Your task to perform on an android device: delete location history Image 0: 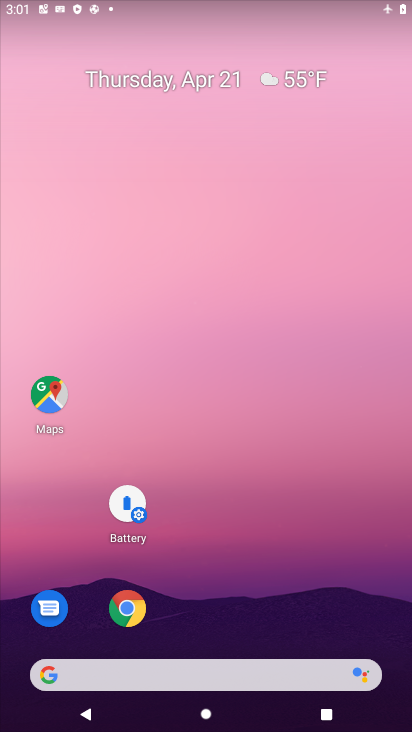
Step 0: drag from (309, 574) to (267, 43)
Your task to perform on an android device: delete location history Image 1: 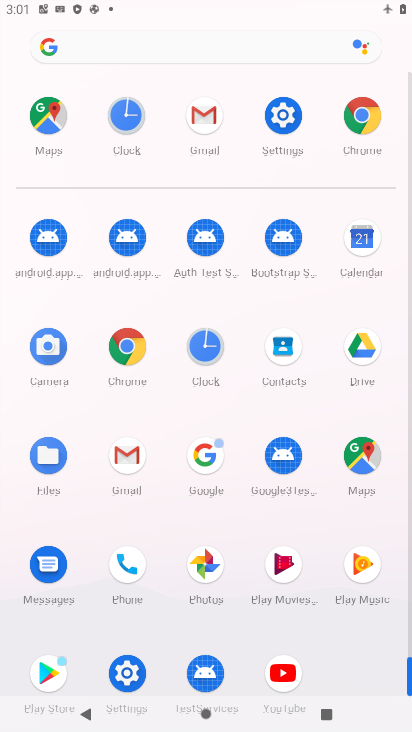
Step 1: click (278, 126)
Your task to perform on an android device: delete location history Image 2: 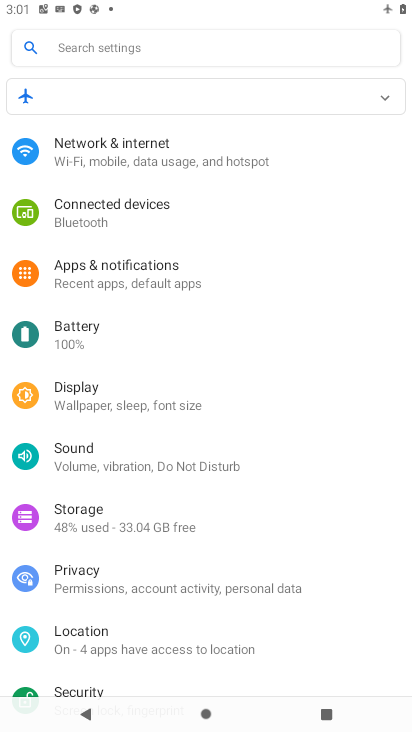
Step 2: press home button
Your task to perform on an android device: delete location history Image 3: 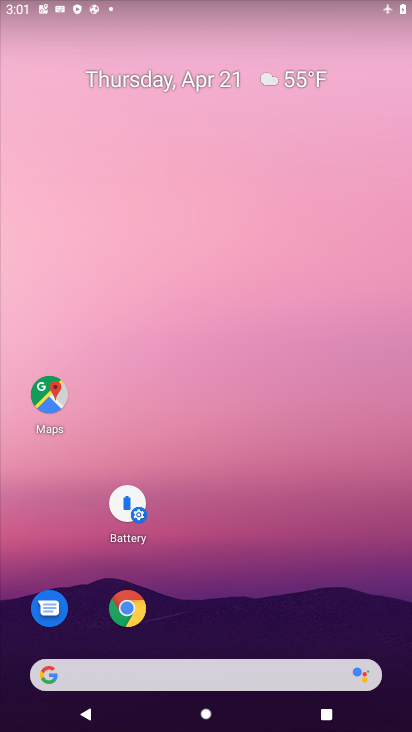
Step 3: click (54, 390)
Your task to perform on an android device: delete location history Image 4: 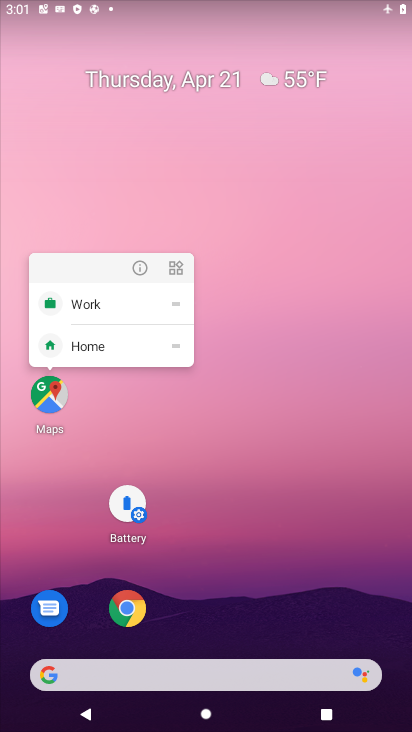
Step 4: click (54, 388)
Your task to perform on an android device: delete location history Image 5: 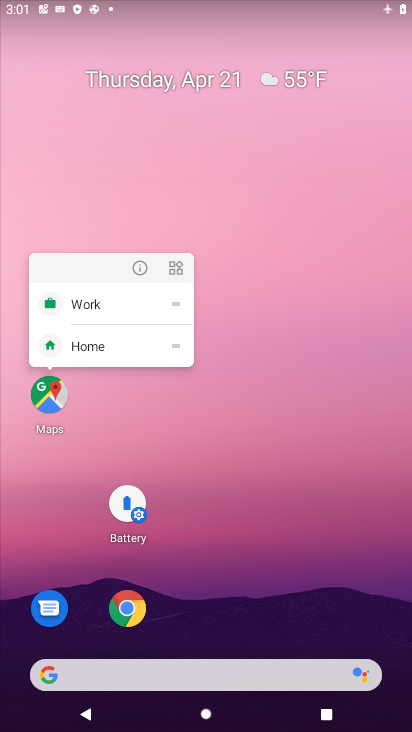
Step 5: click (54, 386)
Your task to perform on an android device: delete location history Image 6: 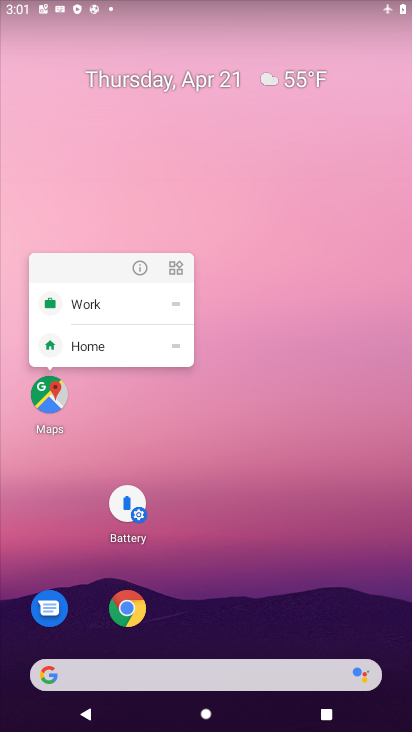
Step 6: click (54, 385)
Your task to perform on an android device: delete location history Image 7: 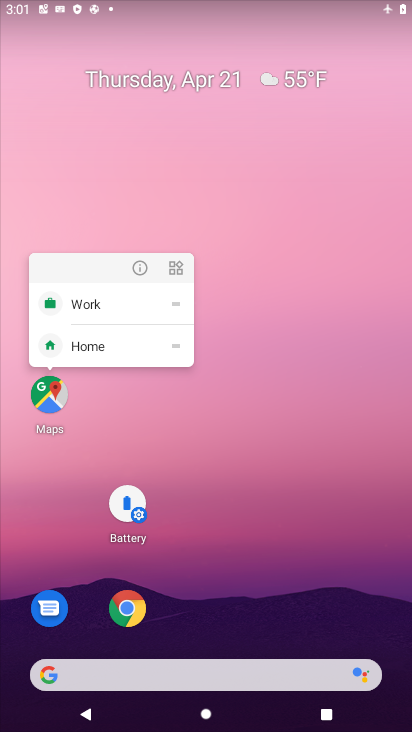
Step 7: click (54, 385)
Your task to perform on an android device: delete location history Image 8: 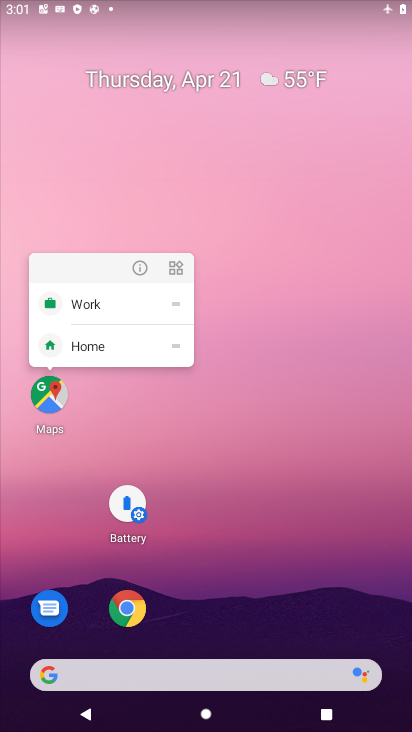
Step 8: click (54, 385)
Your task to perform on an android device: delete location history Image 9: 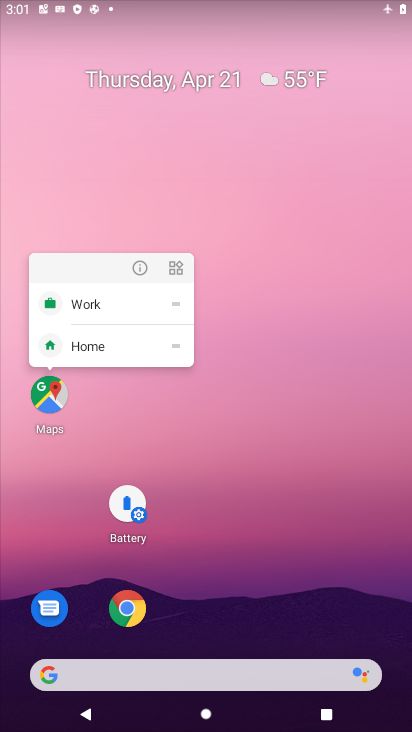
Step 9: click (54, 385)
Your task to perform on an android device: delete location history Image 10: 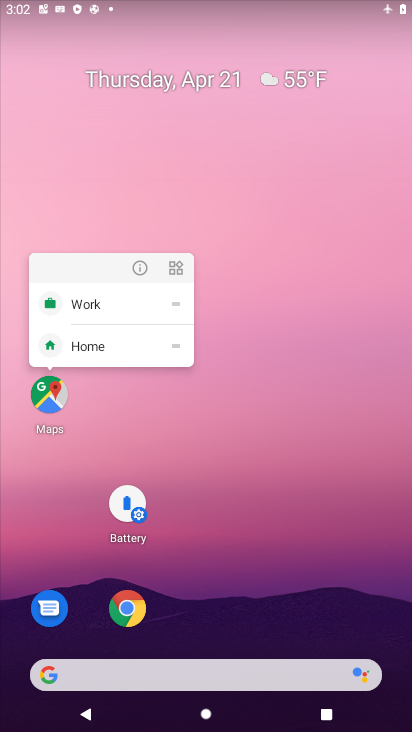
Step 10: click (54, 384)
Your task to perform on an android device: delete location history Image 11: 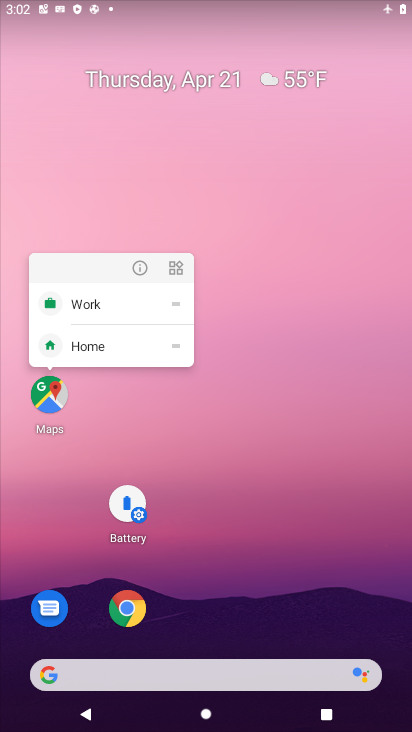
Step 11: click (54, 384)
Your task to perform on an android device: delete location history Image 12: 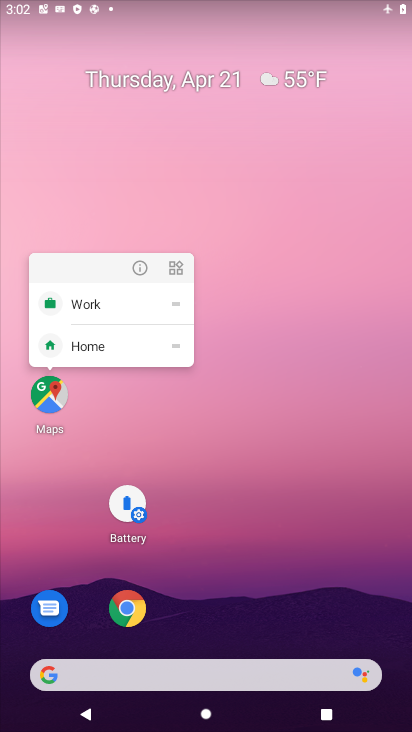
Step 12: click (54, 384)
Your task to perform on an android device: delete location history Image 13: 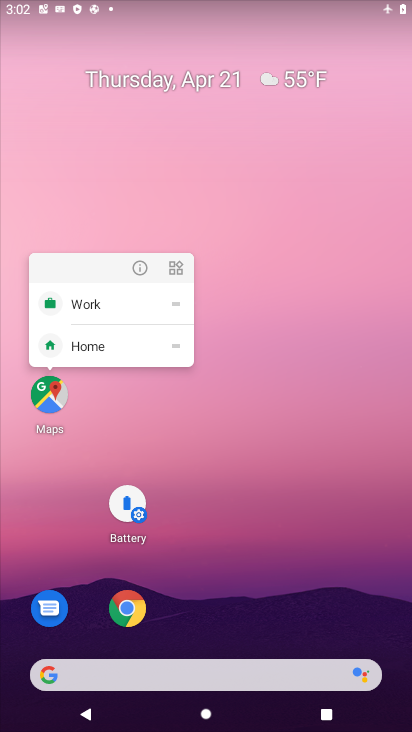
Step 13: click (47, 391)
Your task to perform on an android device: delete location history Image 14: 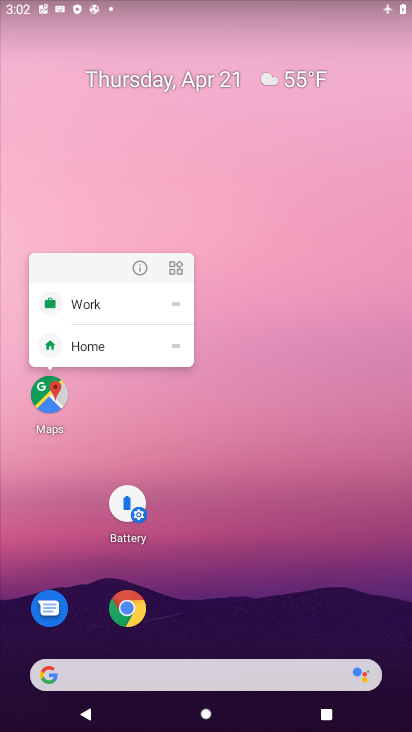
Step 14: click (49, 390)
Your task to perform on an android device: delete location history Image 15: 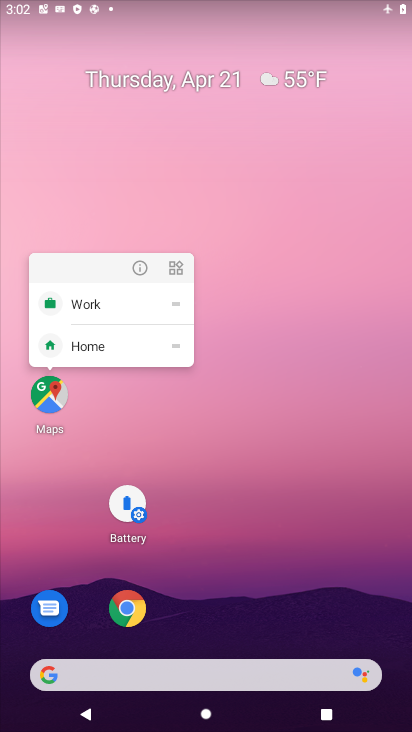
Step 15: click (49, 390)
Your task to perform on an android device: delete location history Image 16: 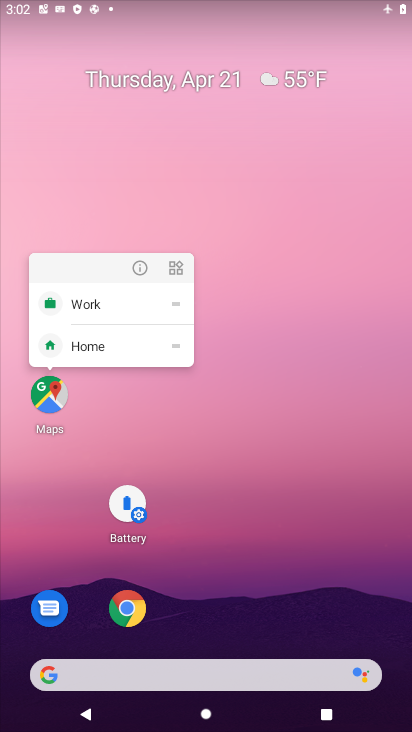
Step 16: click (49, 390)
Your task to perform on an android device: delete location history Image 17: 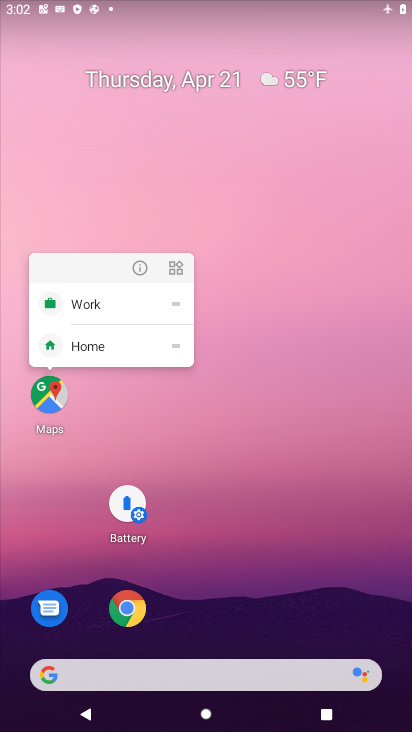
Step 17: click (49, 390)
Your task to perform on an android device: delete location history Image 18: 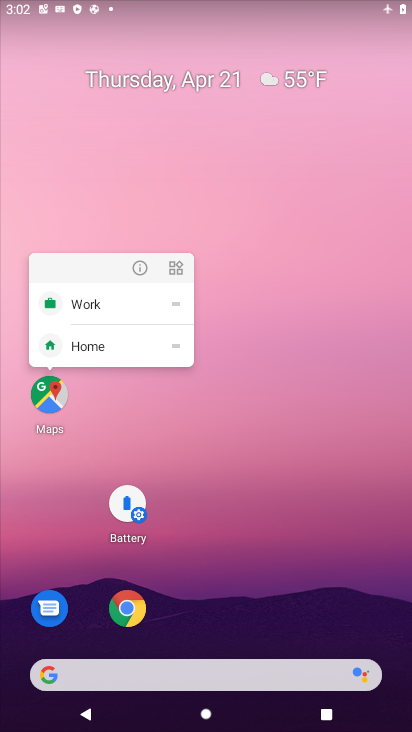
Step 18: click (49, 390)
Your task to perform on an android device: delete location history Image 19: 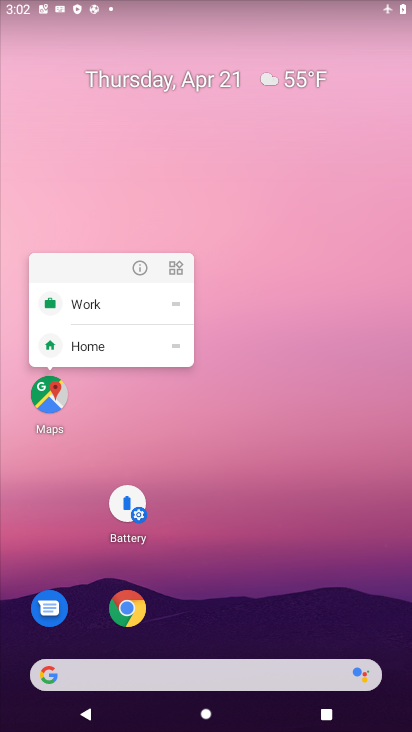
Step 19: click (49, 390)
Your task to perform on an android device: delete location history Image 20: 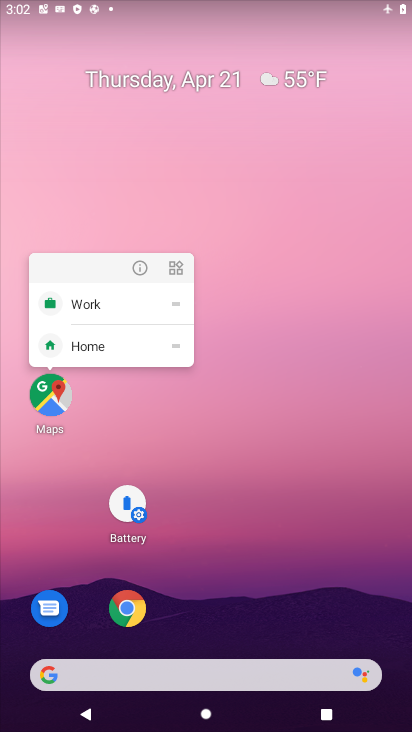
Step 20: click (49, 389)
Your task to perform on an android device: delete location history Image 21: 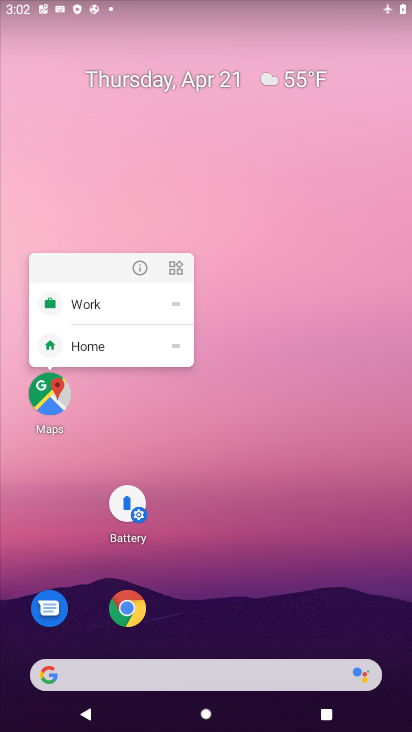
Step 21: click (51, 391)
Your task to perform on an android device: delete location history Image 22: 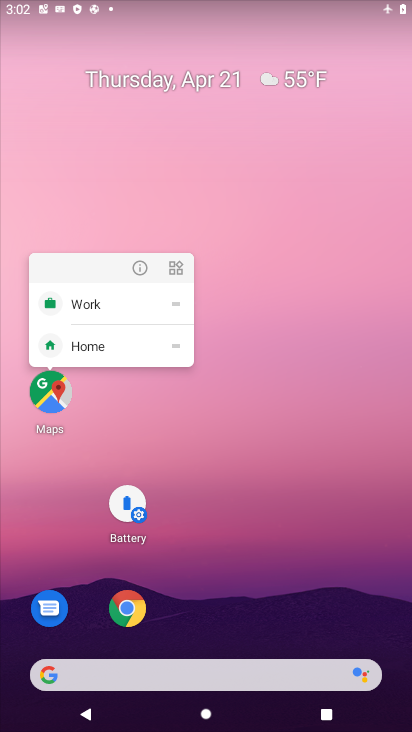
Step 22: click (50, 390)
Your task to perform on an android device: delete location history Image 23: 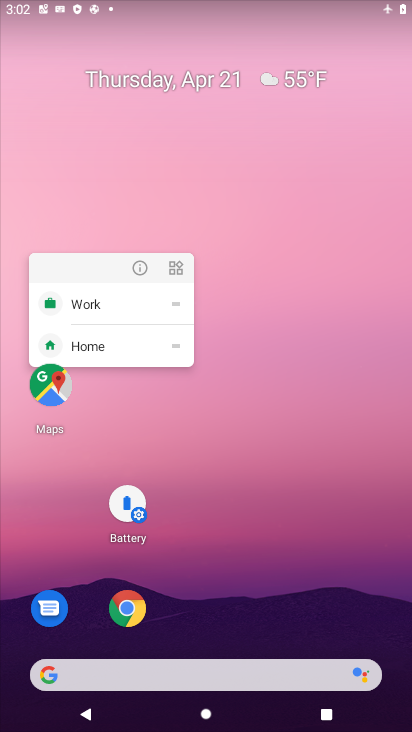
Step 23: click (50, 378)
Your task to perform on an android device: delete location history Image 24: 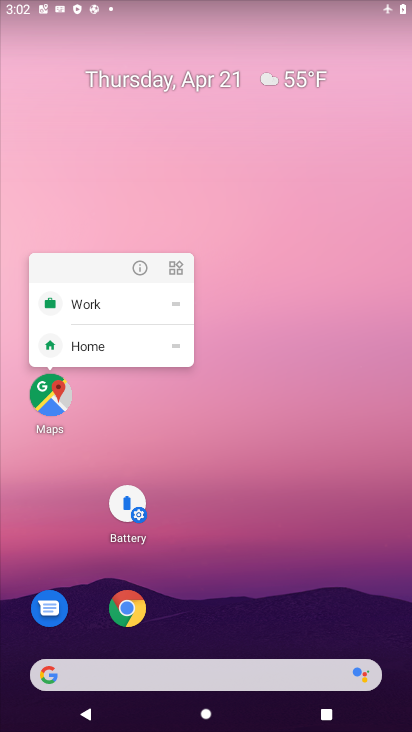
Step 24: click (55, 389)
Your task to perform on an android device: delete location history Image 25: 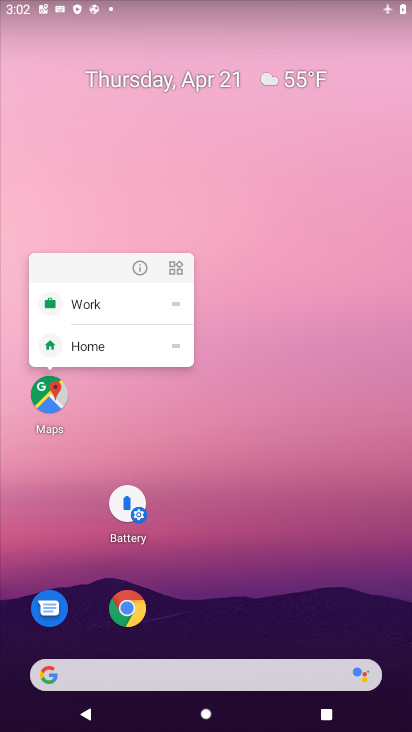
Step 25: click (54, 392)
Your task to perform on an android device: delete location history Image 26: 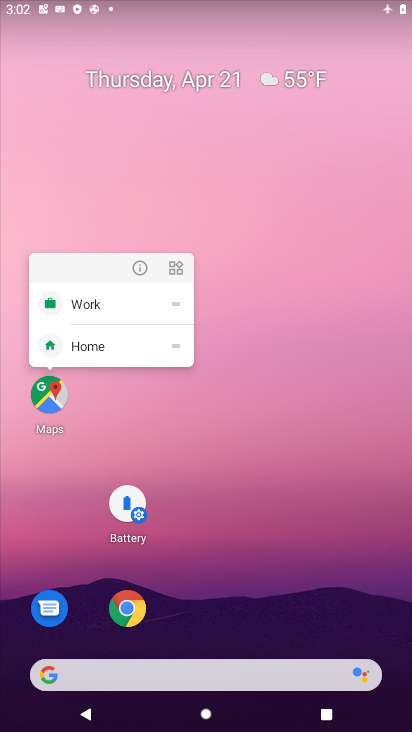
Step 26: click (54, 392)
Your task to perform on an android device: delete location history Image 27: 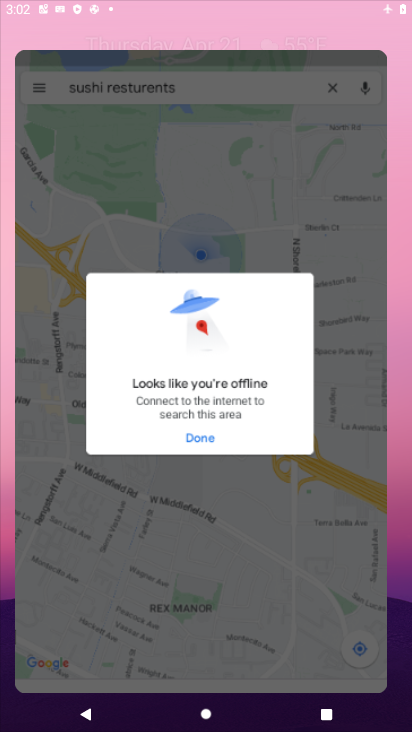
Step 27: click (54, 392)
Your task to perform on an android device: delete location history Image 28: 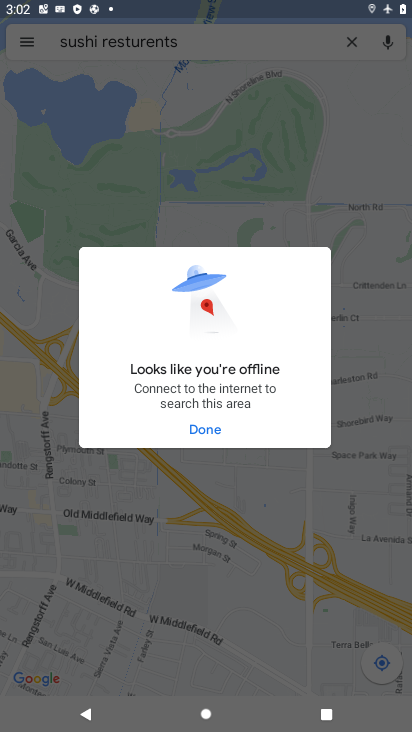
Step 28: click (223, 419)
Your task to perform on an android device: delete location history Image 29: 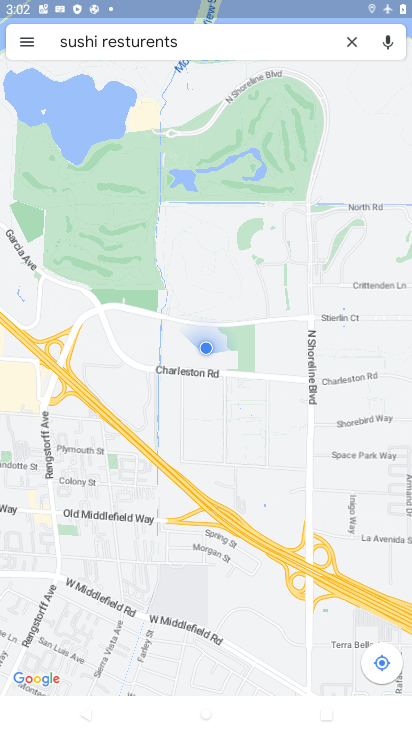
Step 29: click (26, 43)
Your task to perform on an android device: delete location history Image 30: 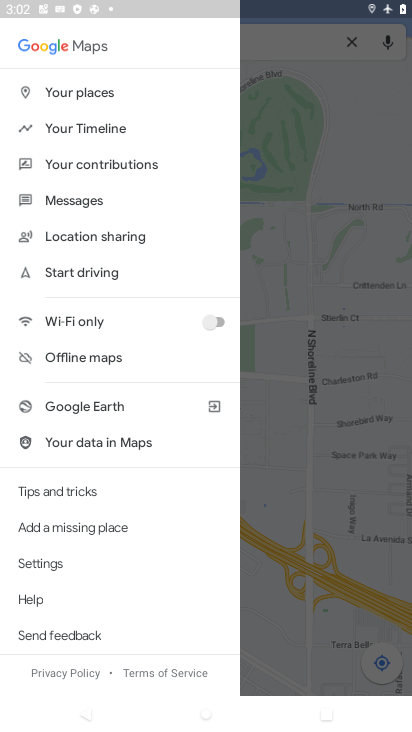
Step 30: click (82, 130)
Your task to perform on an android device: delete location history Image 31: 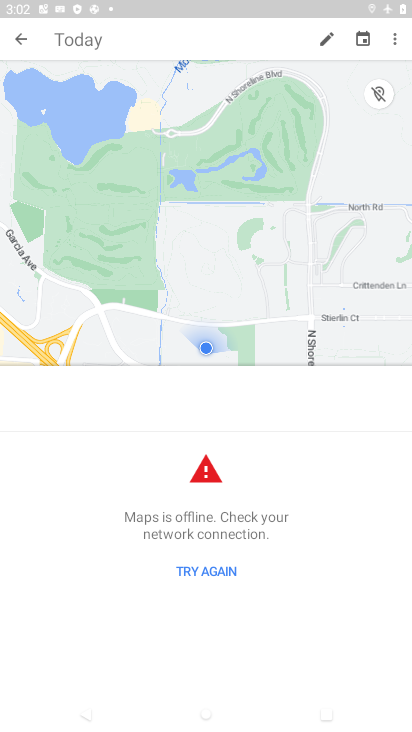
Step 31: click (400, 34)
Your task to perform on an android device: delete location history Image 32: 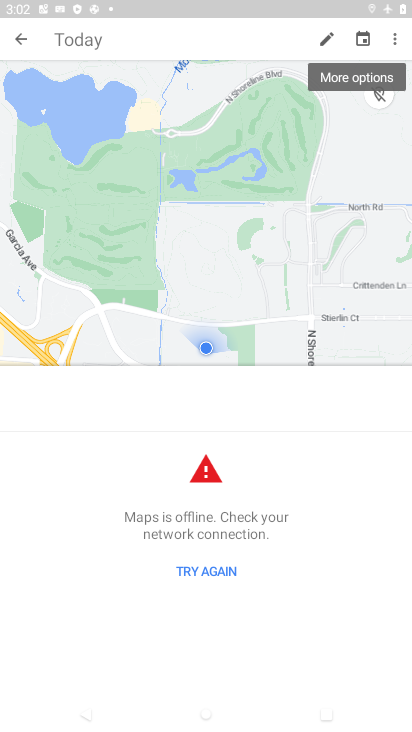
Step 32: click (399, 33)
Your task to perform on an android device: delete location history Image 33: 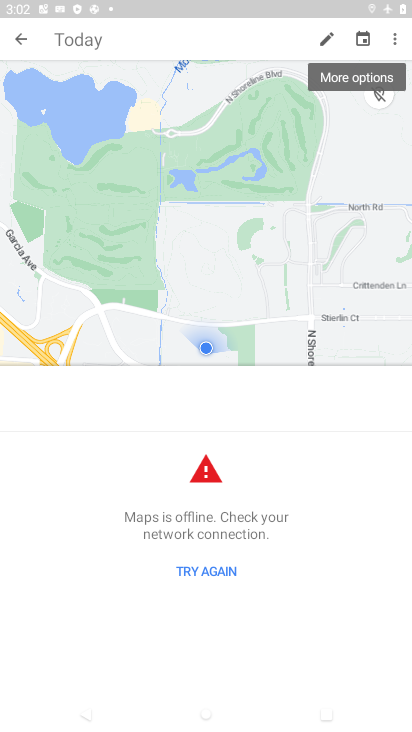
Step 33: click (399, 32)
Your task to perform on an android device: delete location history Image 34: 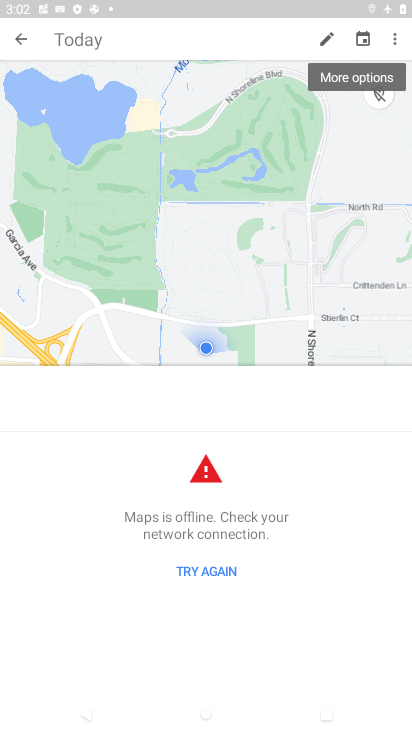
Step 34: click (400, 31)
Your task to perform on an android device: delete location history Image 35: 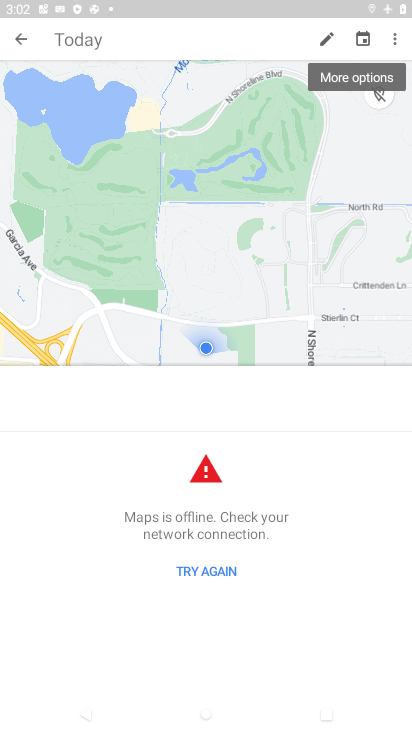
Step 35: click (400, 31)
Your task to perform on an android device: delete location history Image 36: 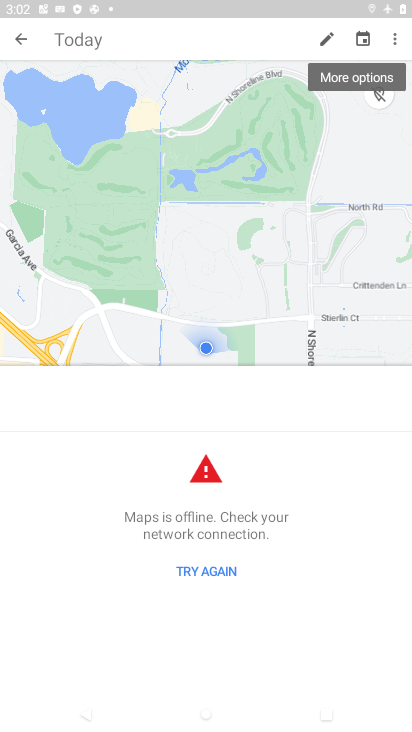
Step 36: click (400, 31)
Your task to perform on an android device: delete location history Image 37: 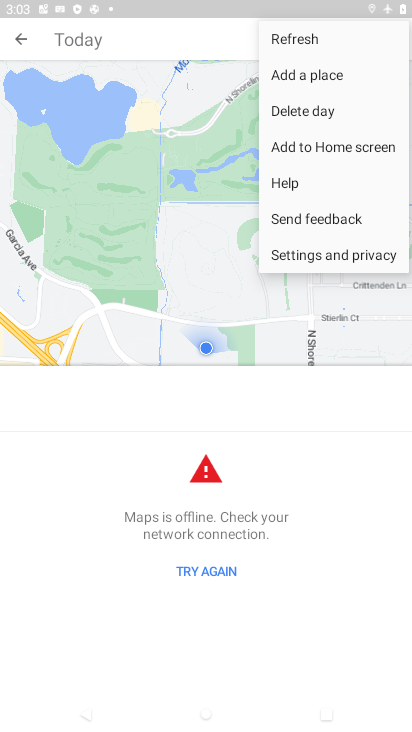
Step 37: click (396, 42)
Your task to perform on an android device: delete location history Image 38: 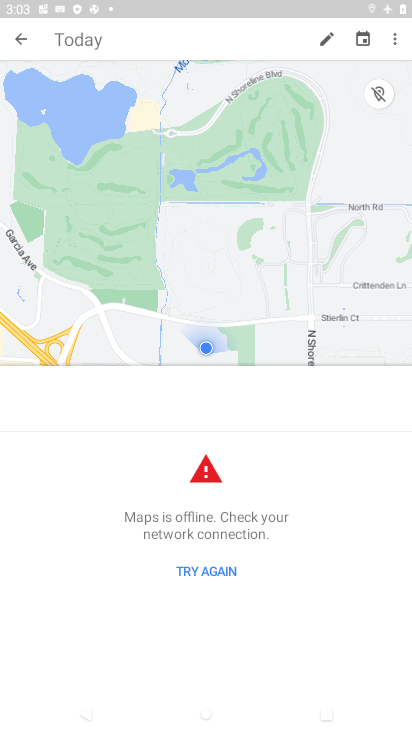
Step 38: click (394, 40)
Your task to perform on an android device: delete location history Image 39: 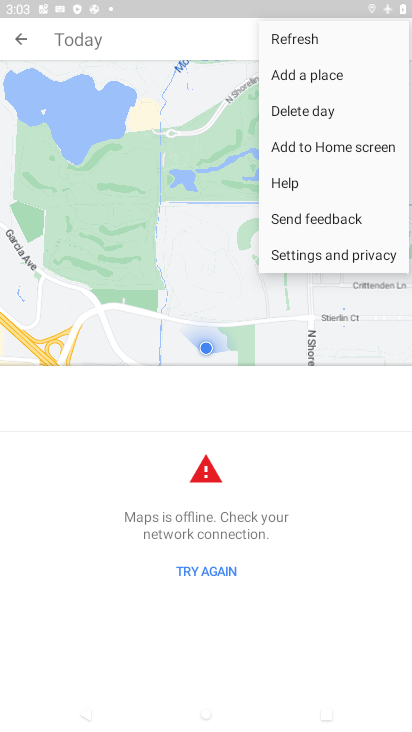
Step 39: click (344, 250)
Your task to perform on an android device: delete location history Image 40: 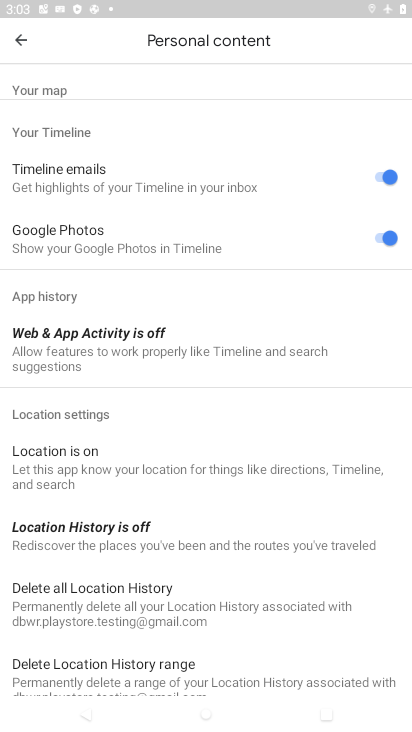
Step 40: click (151, 280)
Your task to perform on an android device: delete location history Image 41: 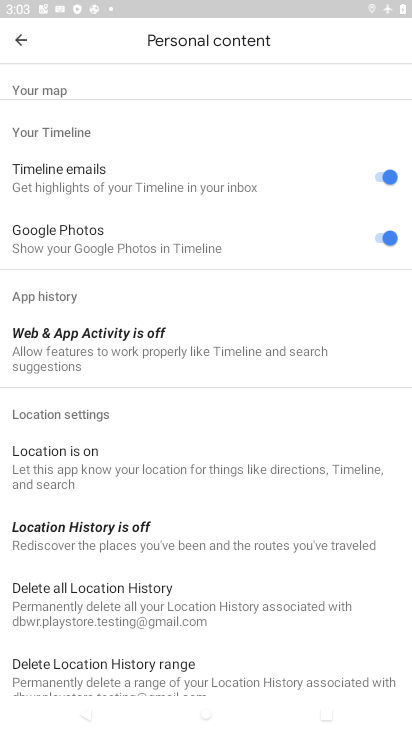
Step 41: click (113, 596)
Your task to perform on an android device: delete location history Image 42: 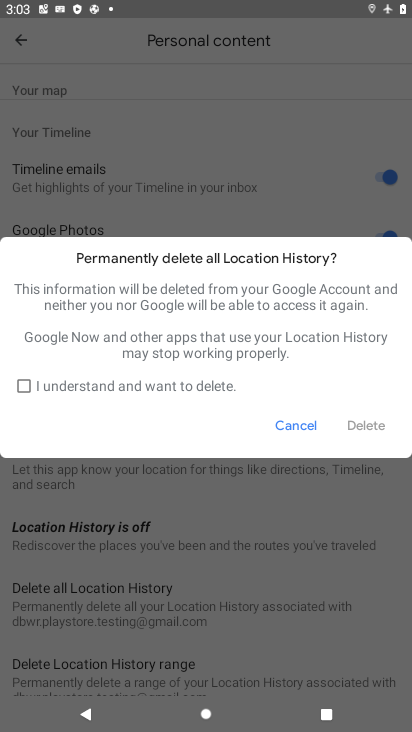
Step 42: click (15, 382)
Your task to perform on an android device: delete location history Image 43: 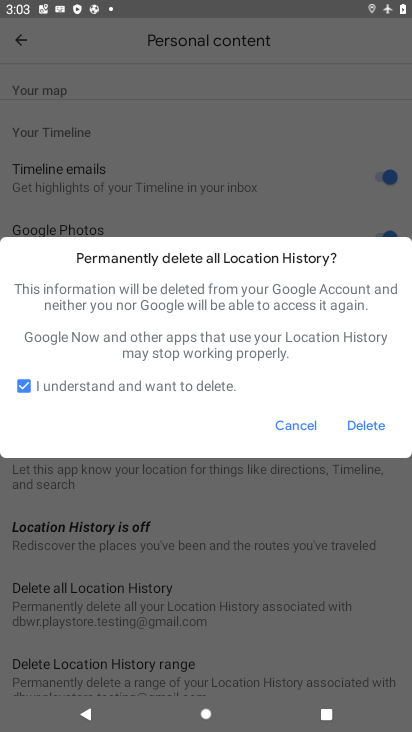
Step 43: click (374, 424)
Your task to perform on an android device: delete location history Image 44: 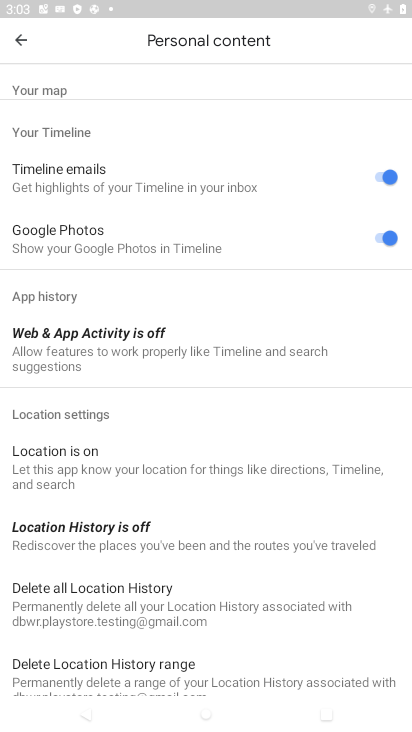
Step 44: task complete